Your task to perform on an android device: Go to eBay Image 0: 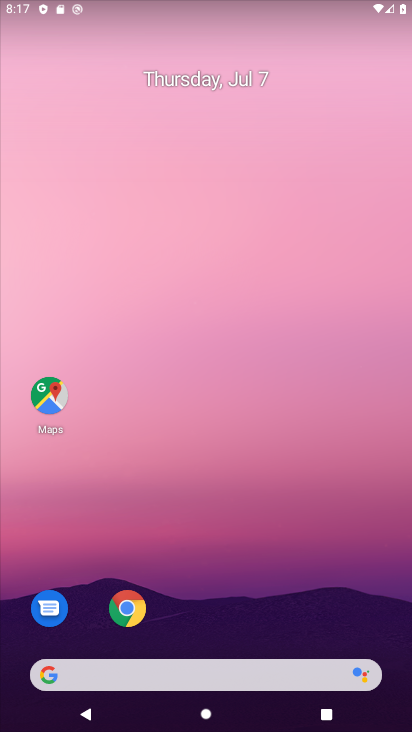
Step 0: drag from (217, 676) to (217, 331)
Your task to perform on an android device: Go to eBay Image 1: 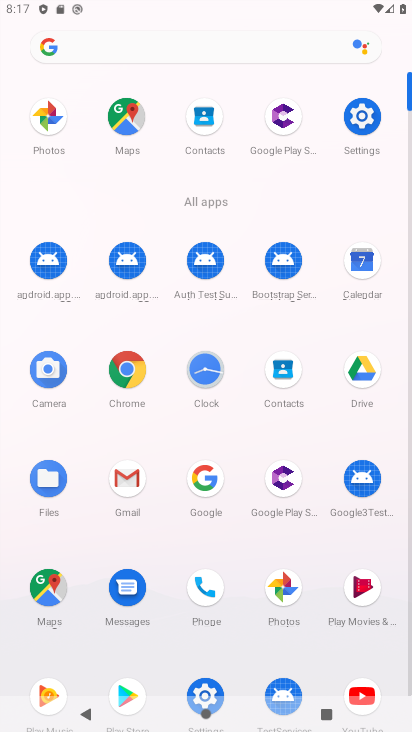
Step 1: click (122, 368)
Your task to perform on an android device: Go to eBay Image 2: 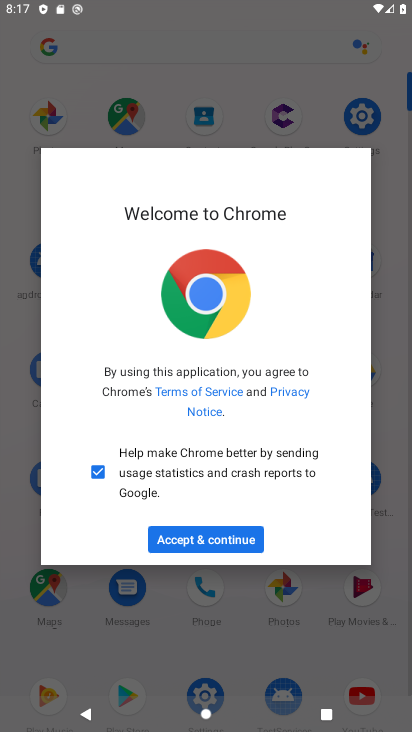
Step 2: click (184, 541)
Your task to perform on an android device: Go to eBay Image 3: 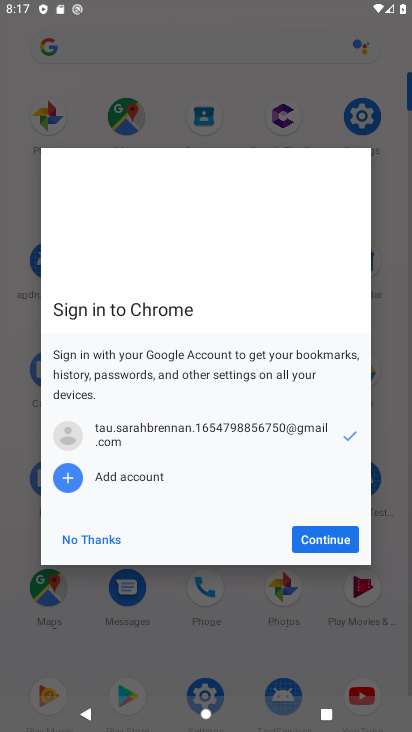
Step 3: click (331, 533)
Your task to perform on an android device: Go to eBay Image 4: 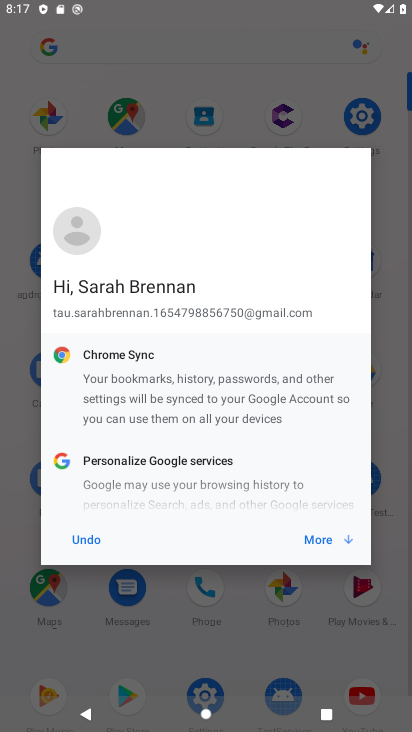
Step 4: click (331, 537)
Your task to perform on an android device: Go to eBay Image 5: 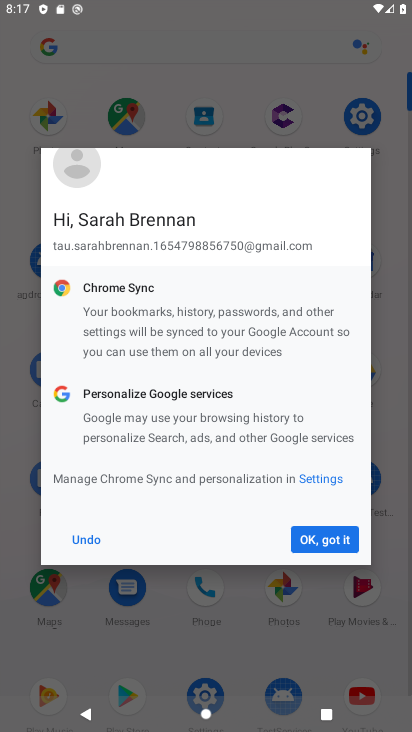
Step 5: click (331, 537)
Your task to perform on an android device: Go to eBay Image 6: 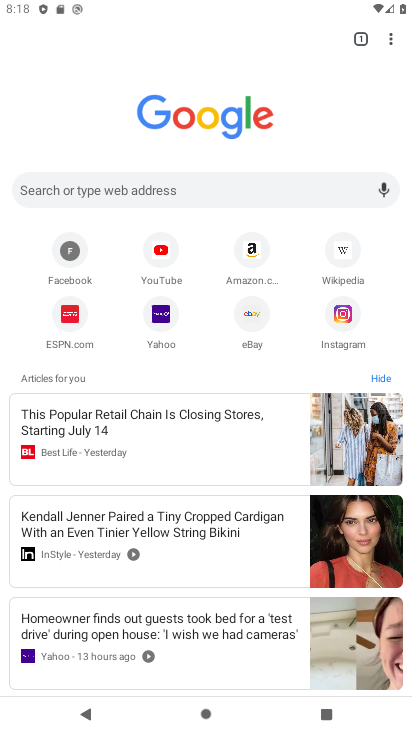
Step 6: click (251, 316)
Your task to perform on an android device: Go to eBay Image 7: 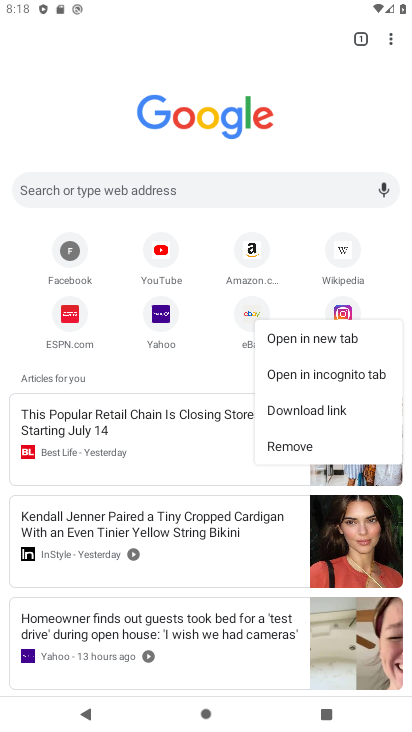
Step 7: click (248, 313)
Your task to perform on an android device: Go to eBay Image 8: 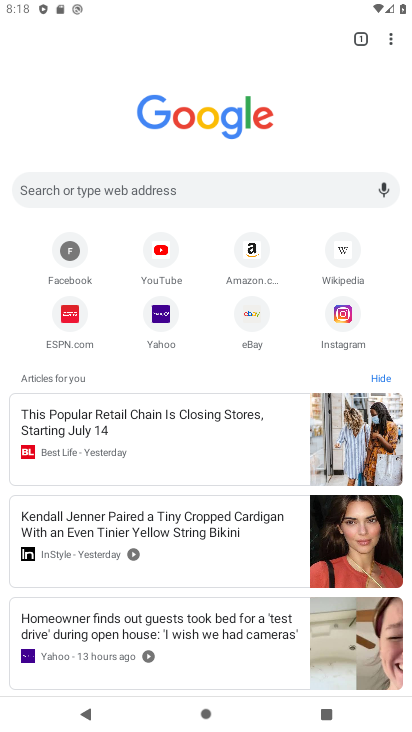
Step 8: click (251, 320)
Your task to perform on an android device: Go to eBay Image 9: 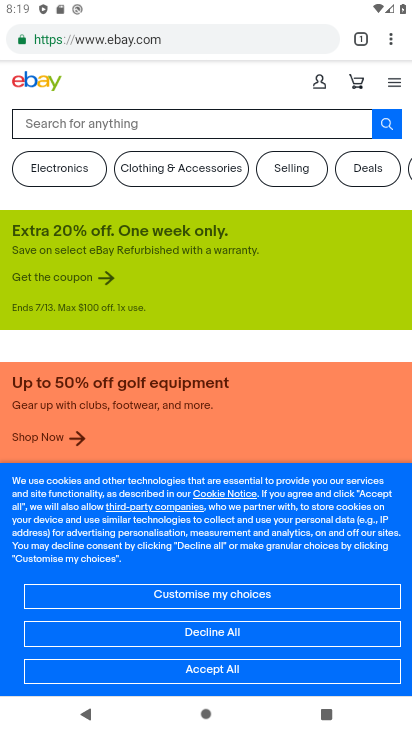
Step 9: task complete